Your task to perform on an android device: change the clock display to analog Image 0: 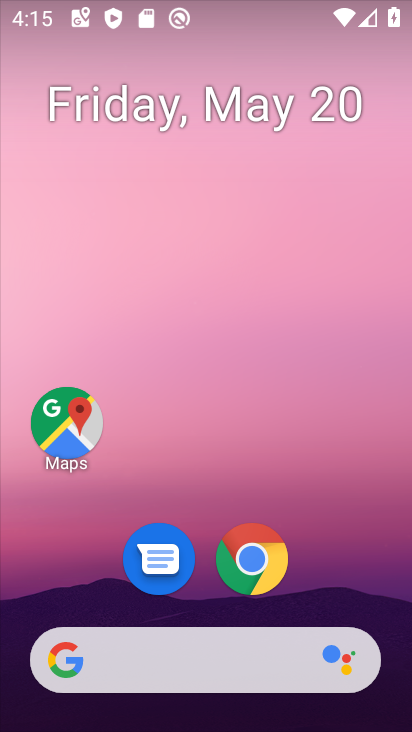
Step 0: drag from (160, 630) to (260, 100)
Your task to perform on an android device: change the clock display to analog Image 1: 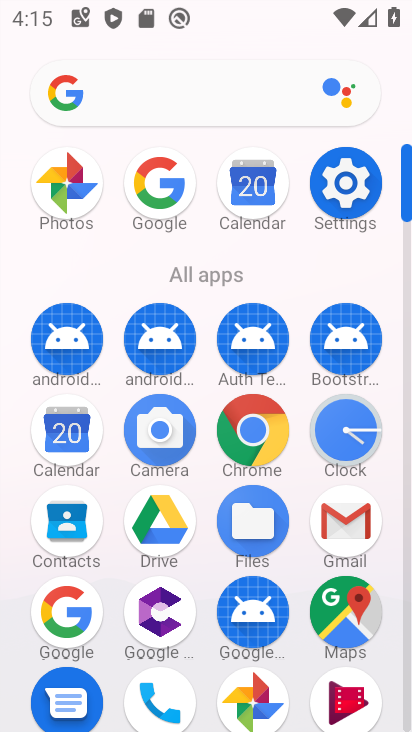
Step 1: click (334, 425)
Your task to perform on an android device: change the clock display to analog Image 2: 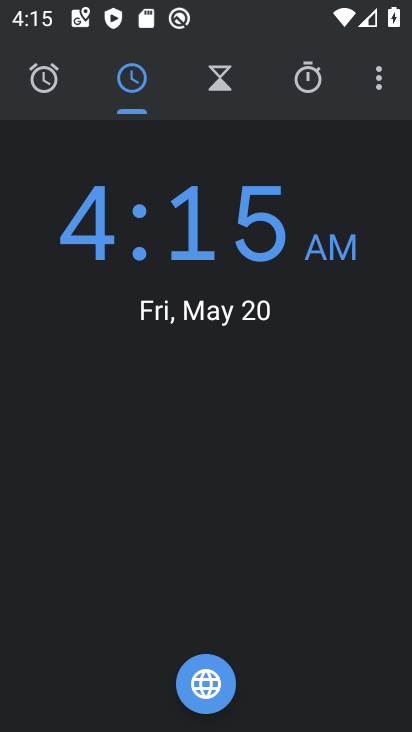
Step 2: click (369, 81)
Your task to perform on an android device: change the clock display to analog Image 3: 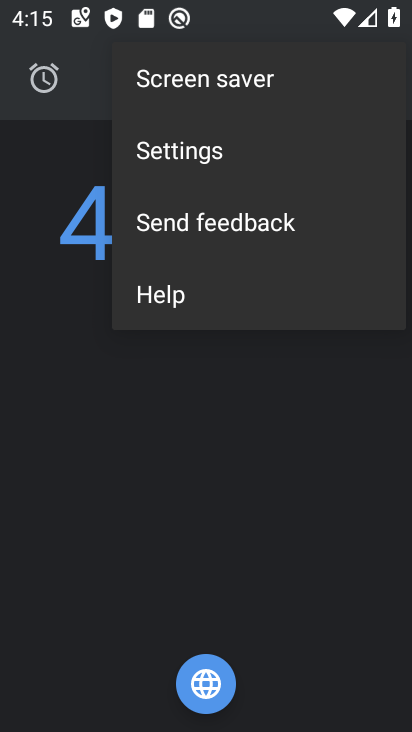
Step 3: click (216, 154)
Your task to perform on an android device: change the clock display to analog Image 4: 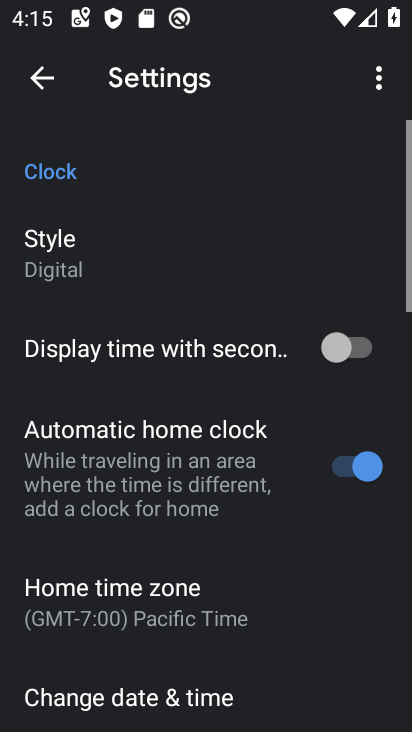
Step 4: click (53, 244)
Your task to perform on an android device: change the clock display to analog Image 5: 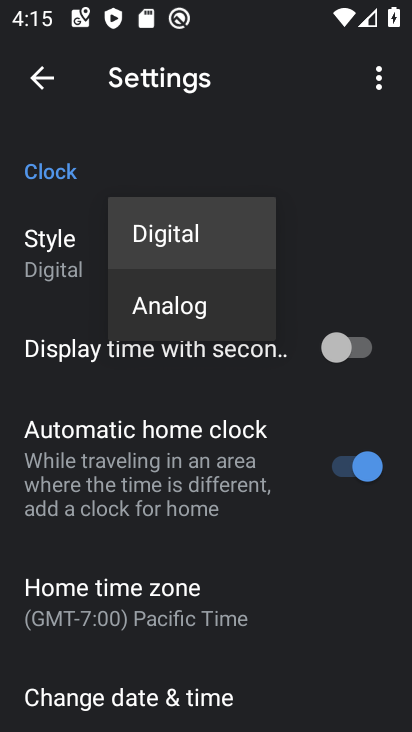
Step 5: click (167, 302)
Your task to perform on an android device: change the clock display to analog Image 6: 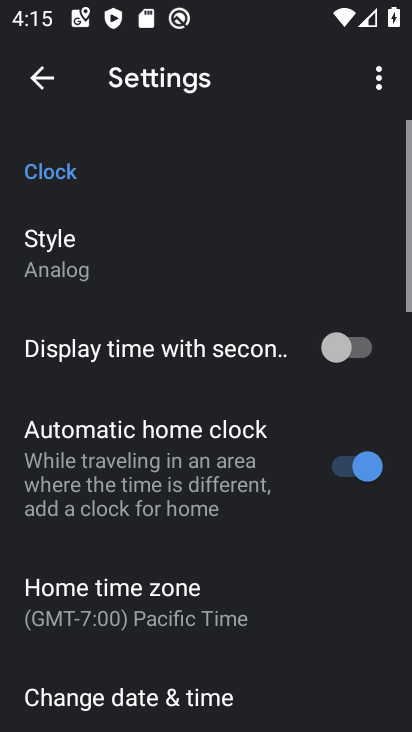
Step 6: task complete